Your task to perform on an android device: Open Google Image 0: 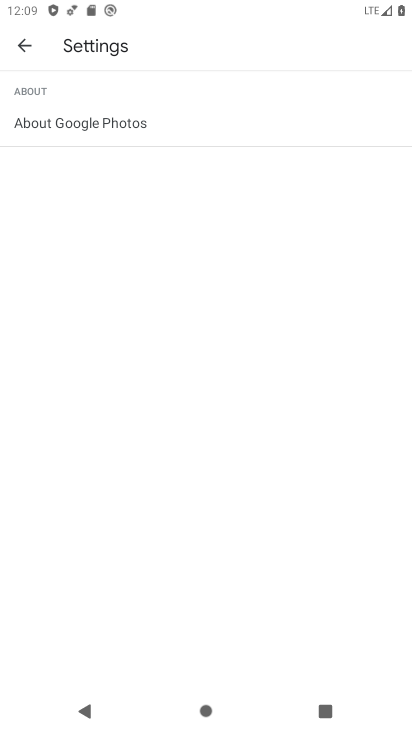
Step 0: press home button
Your task to perform on an android device: Open Google Image 1: 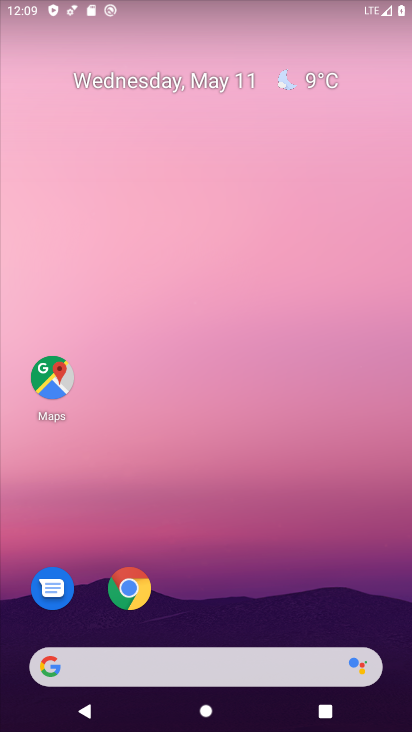
Step 1: drag from (291, 619) to (376, 22)
Your task to perform on an android device: Open Google Image 2: 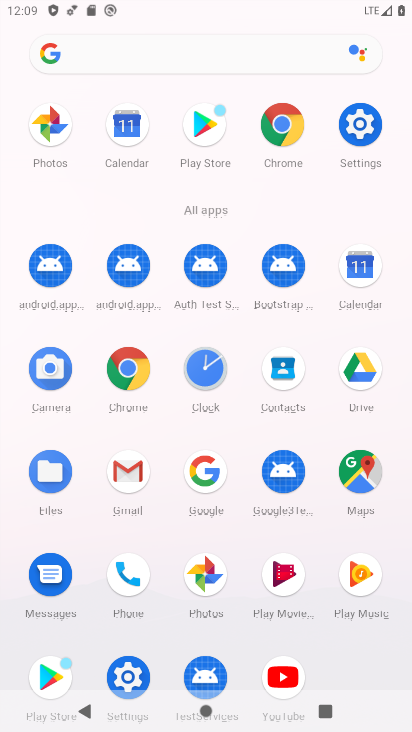
Step 2: click (206, 477)
Your task to perform on an android device: Open Google Image 3: 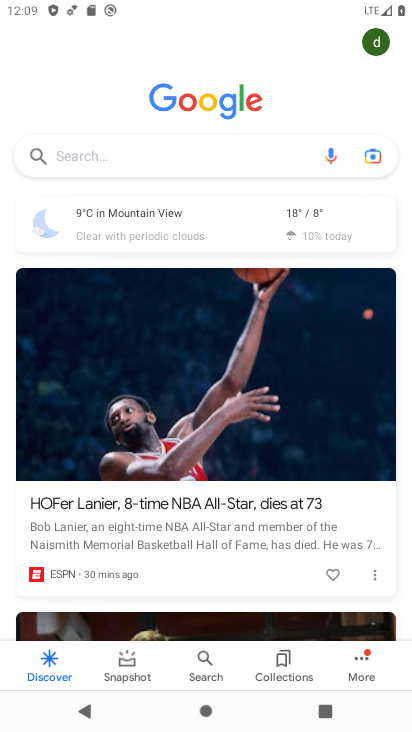
Step 3: task complete